Your task to perform on an android device: search for starred emails in the gmail app Image 0: 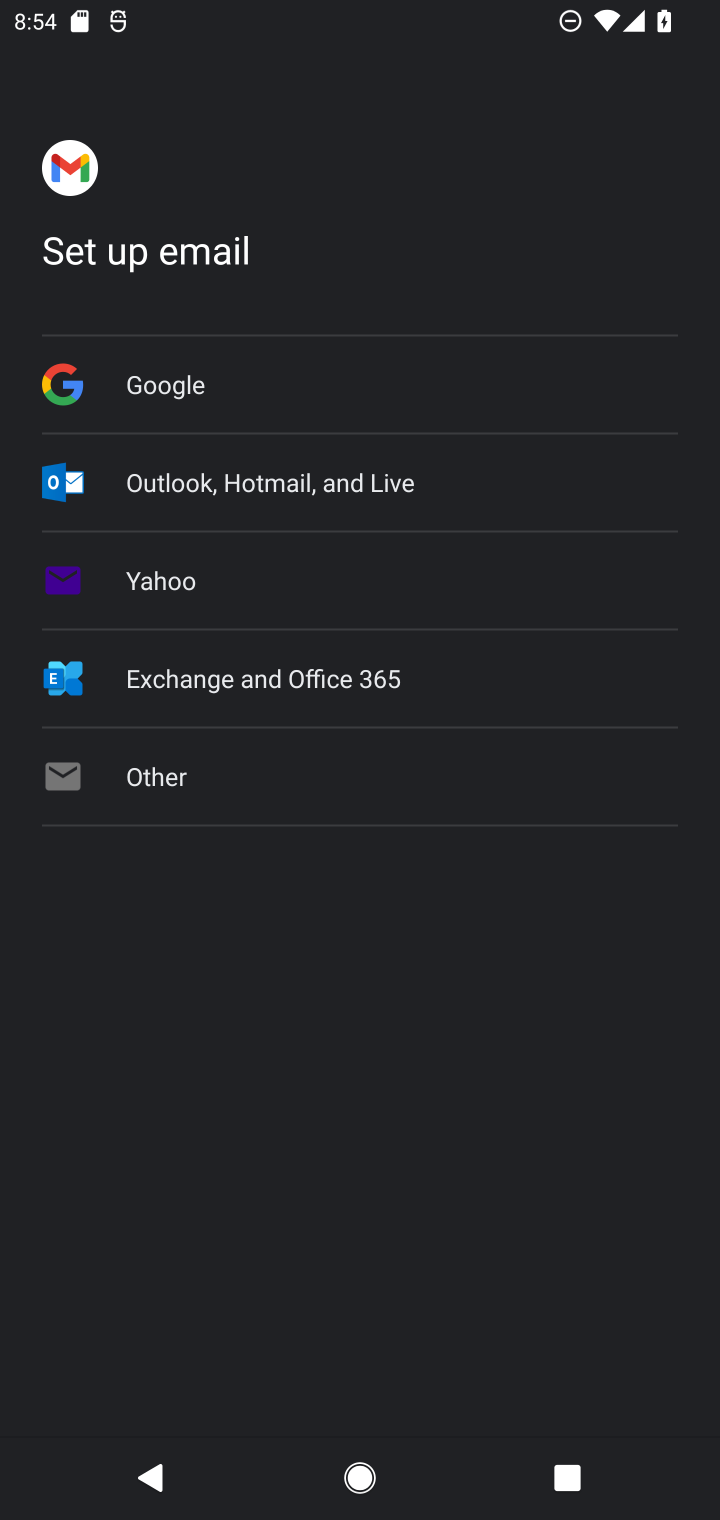
Step 0: press home button
Your task to perform on an android device: search for starred emails in the gmail app Image 1: 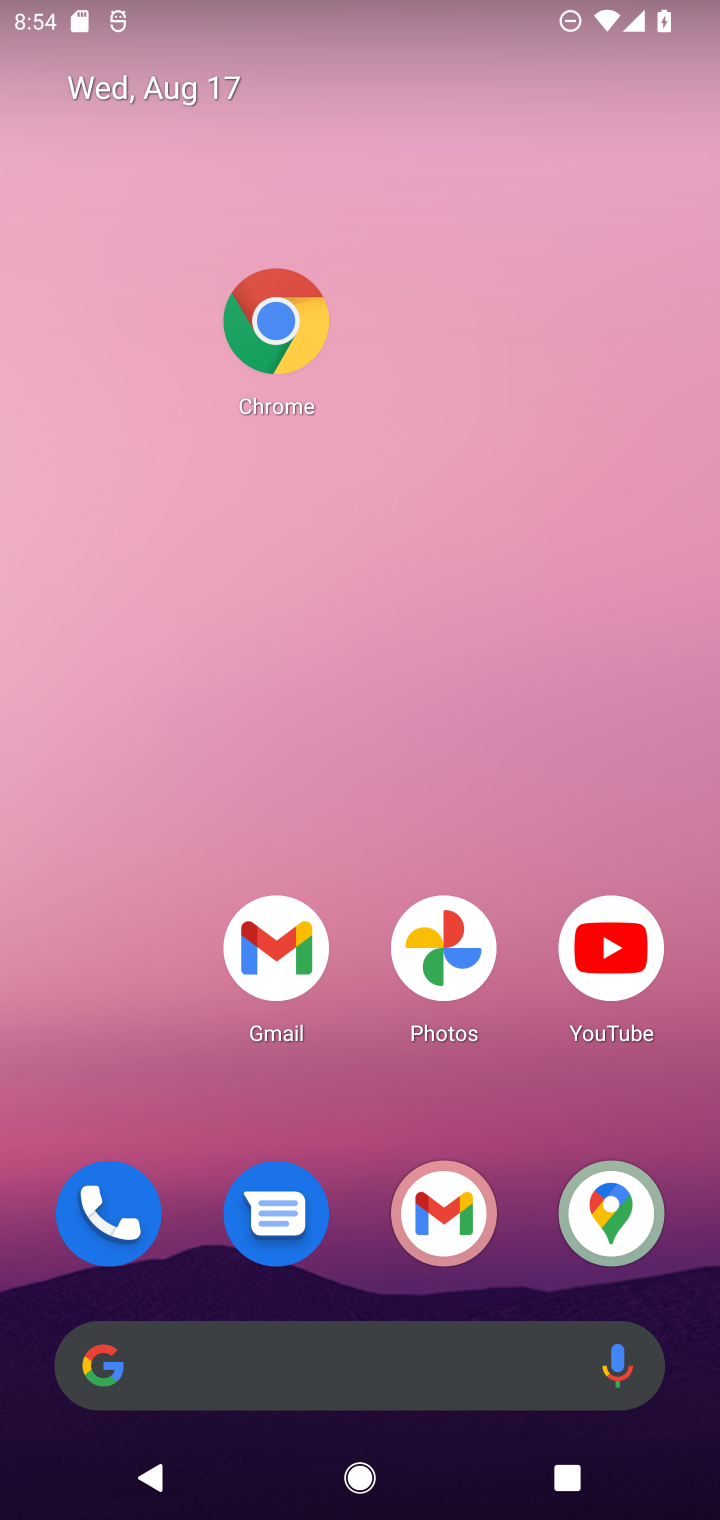
Step 1: click (424, 1224)
Your task to perform on an android device: search for starred emails in the gmail app Image 2: 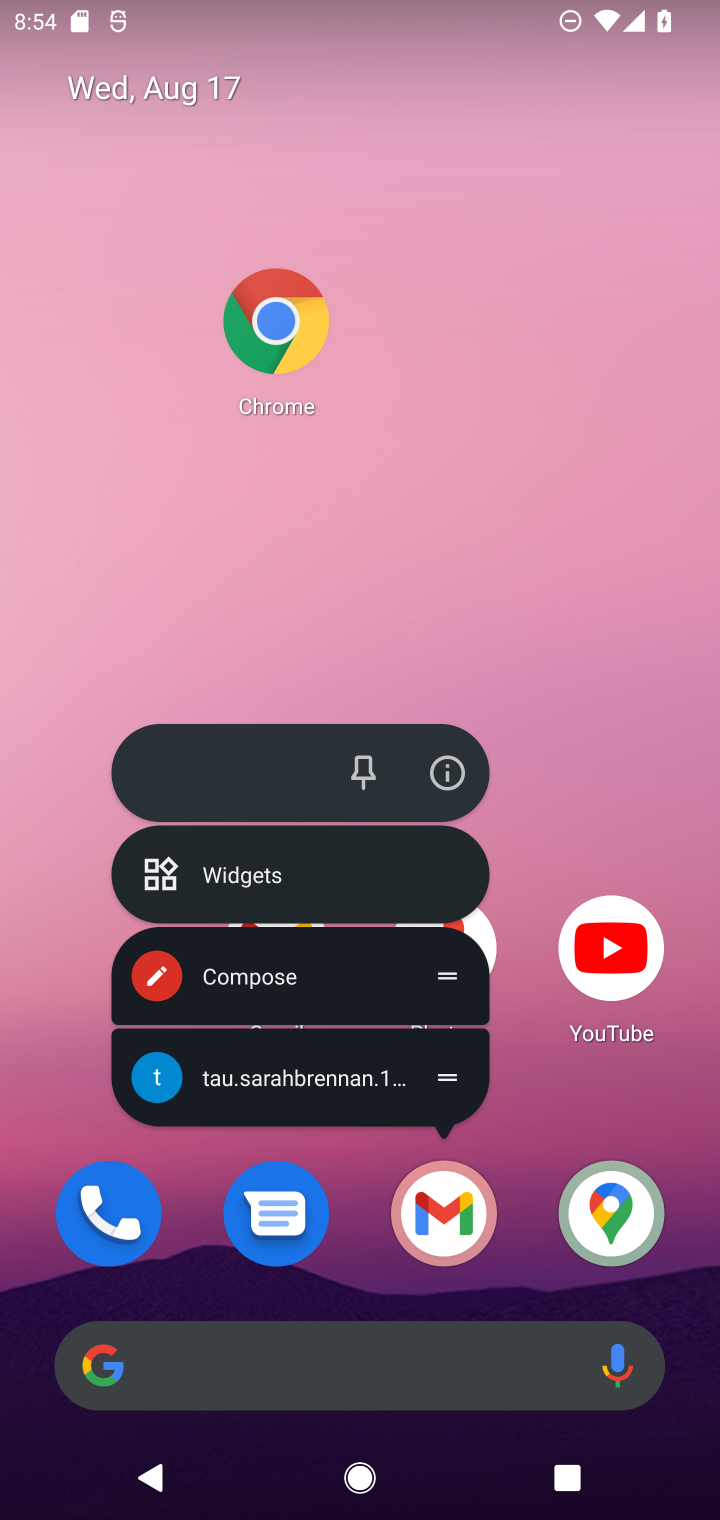
Step 2: click (424, 1224)
Your task to perform on an android device: search for starred emails in the gmail app Image 3: 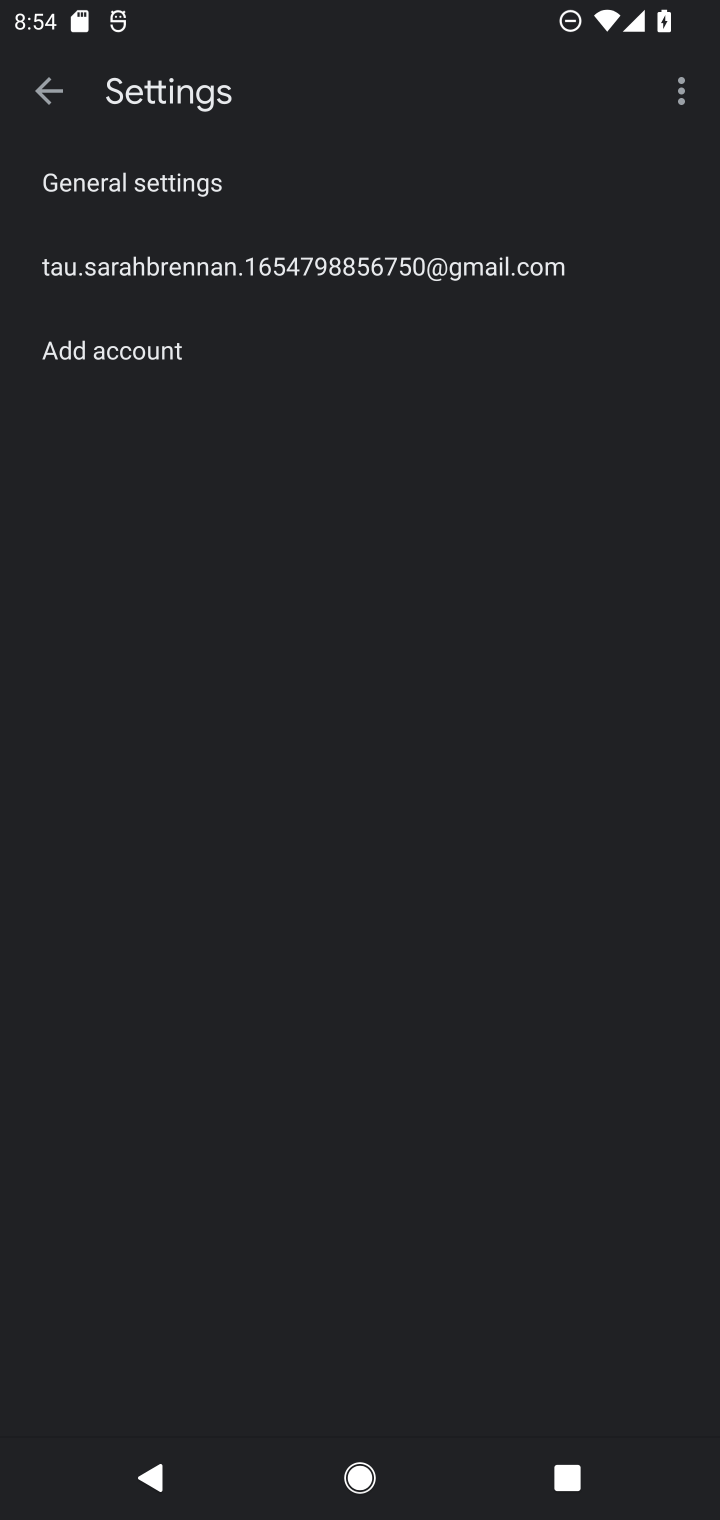
Step 3: click (27, 103)
Your task to perform on an android device: search for starred emails in the gmail app Image 4: 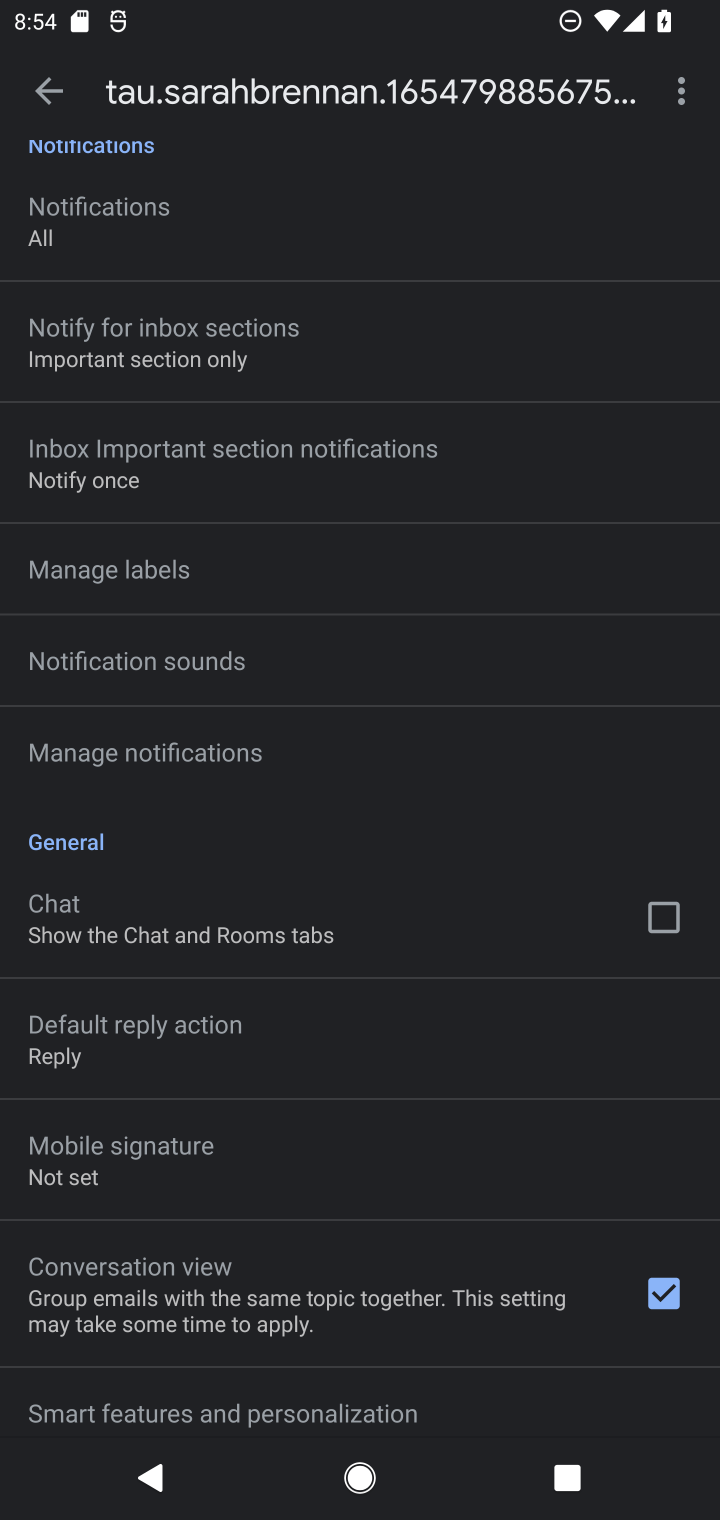
Step 4: click (27, 103)
Your task to perform on an android device: search for starred emails in the gmail app Image 5: 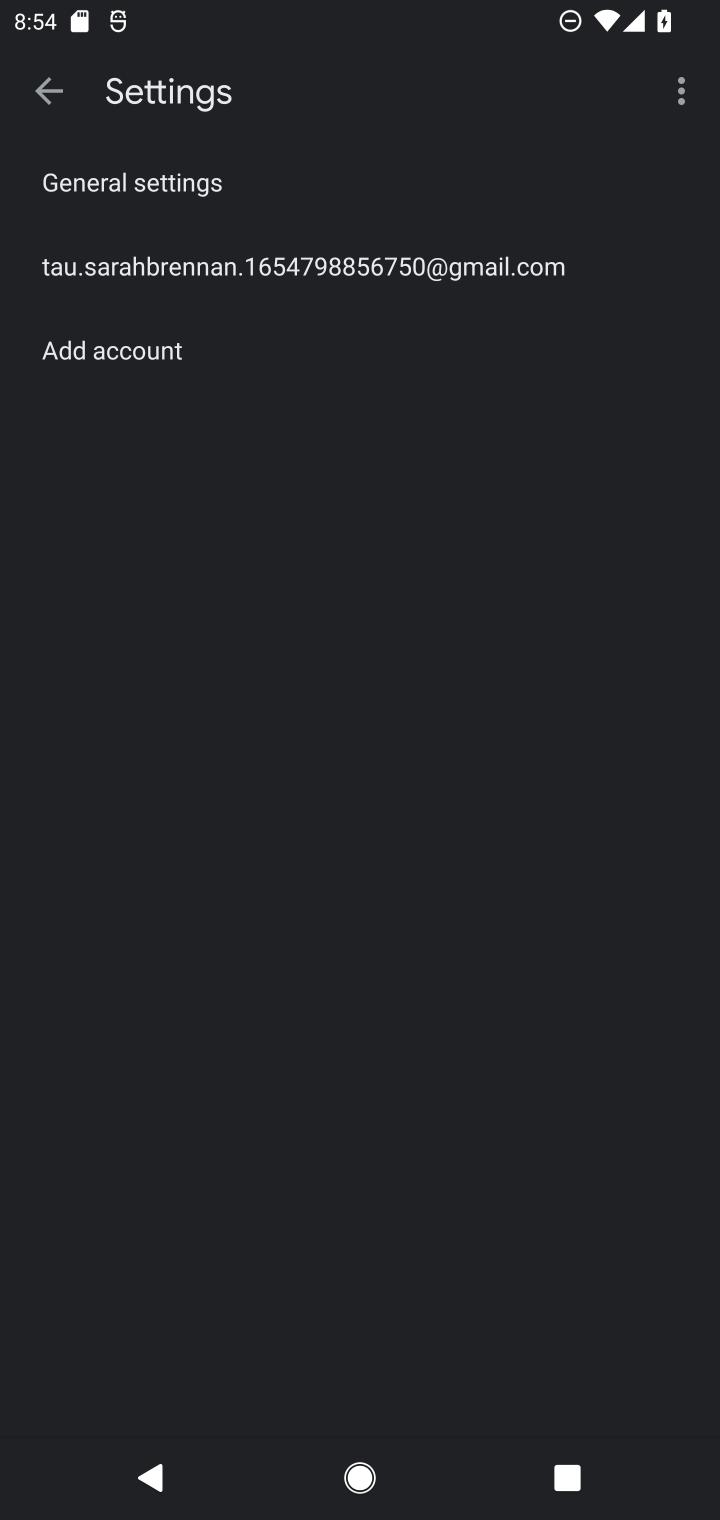
Step 5: click (27, 103)
Your task to perform on an android device: search for starred emails in the gmail app Image 6: 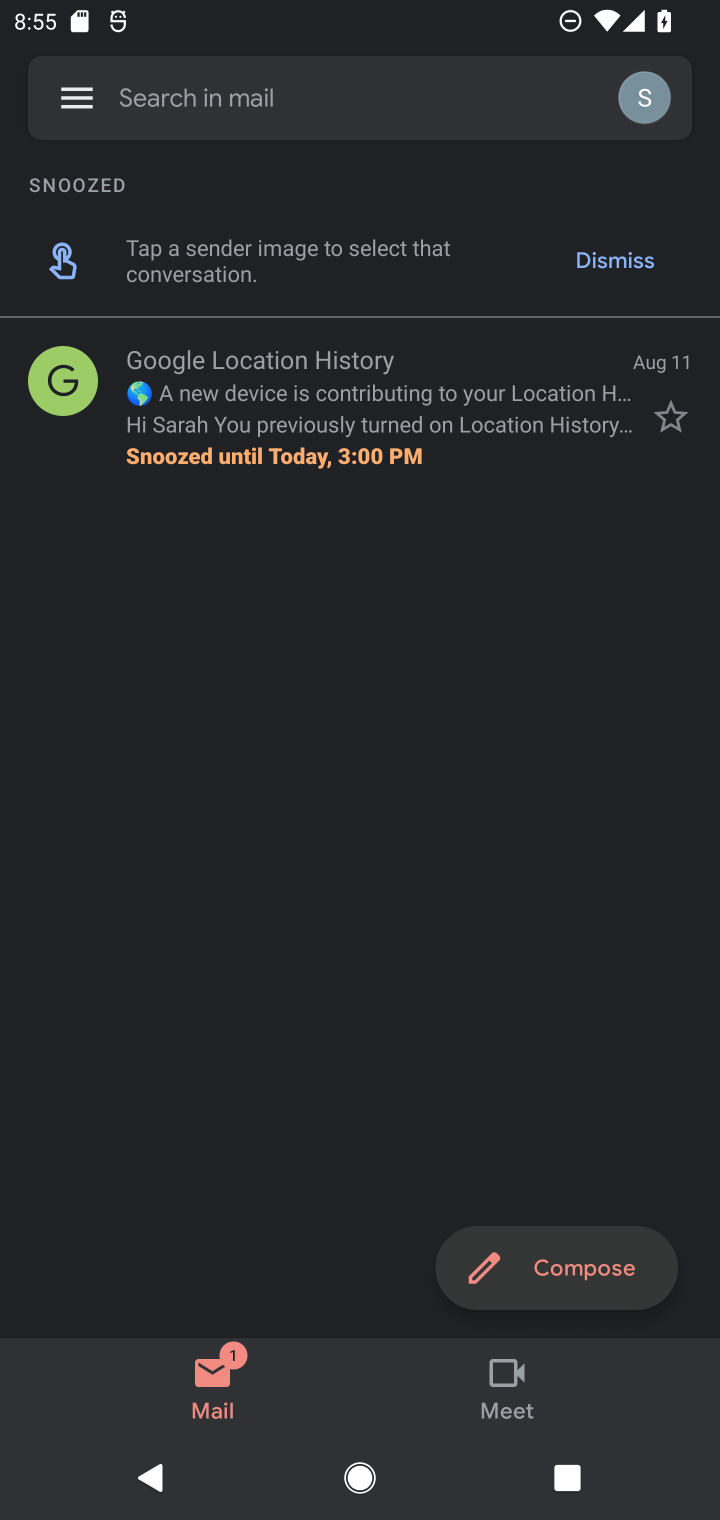
Step 6: click (64, 118)
Your task to perform on an android device: search for starred emails in the gmail app Image 7: 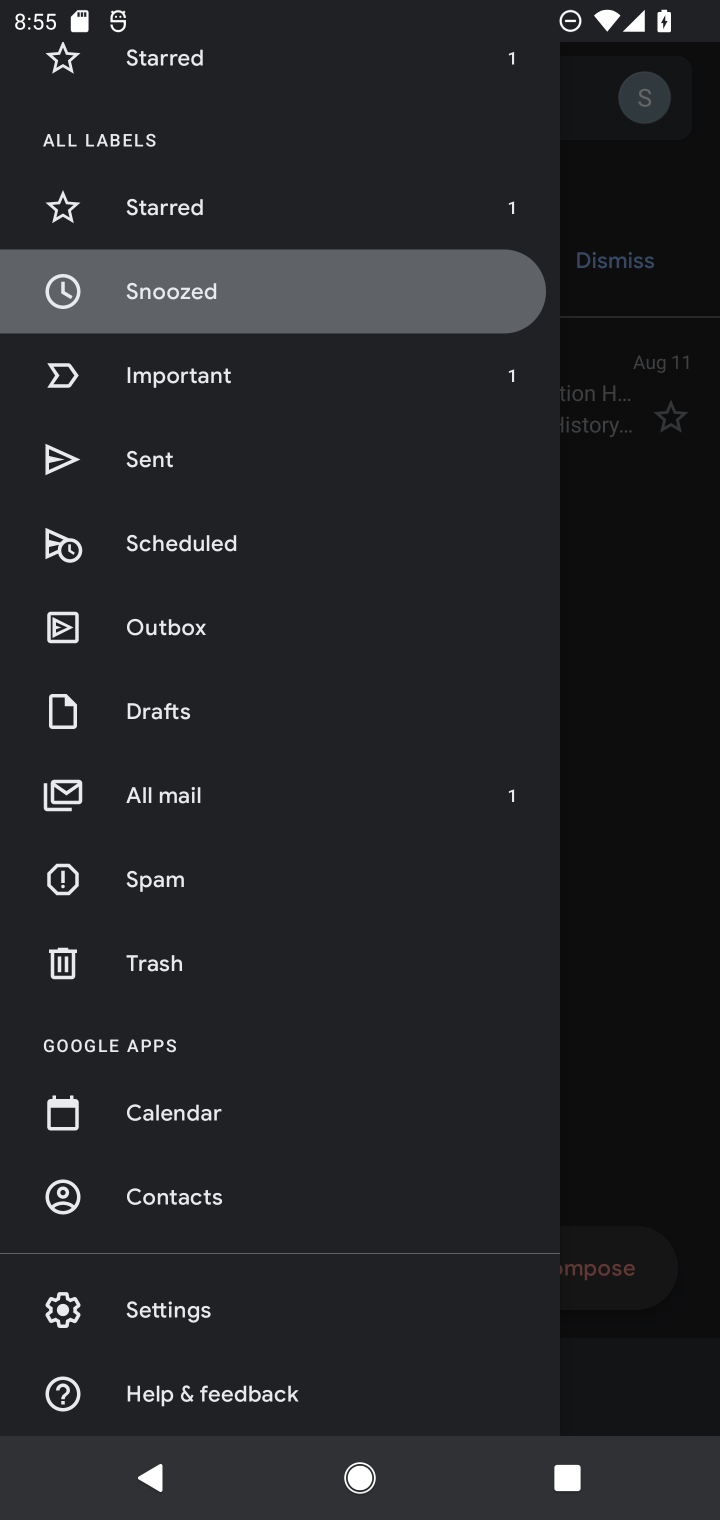
Step 7: click (160, 181)
Your task to perform on an android device: search for starred emails in the gmail app Image 8: 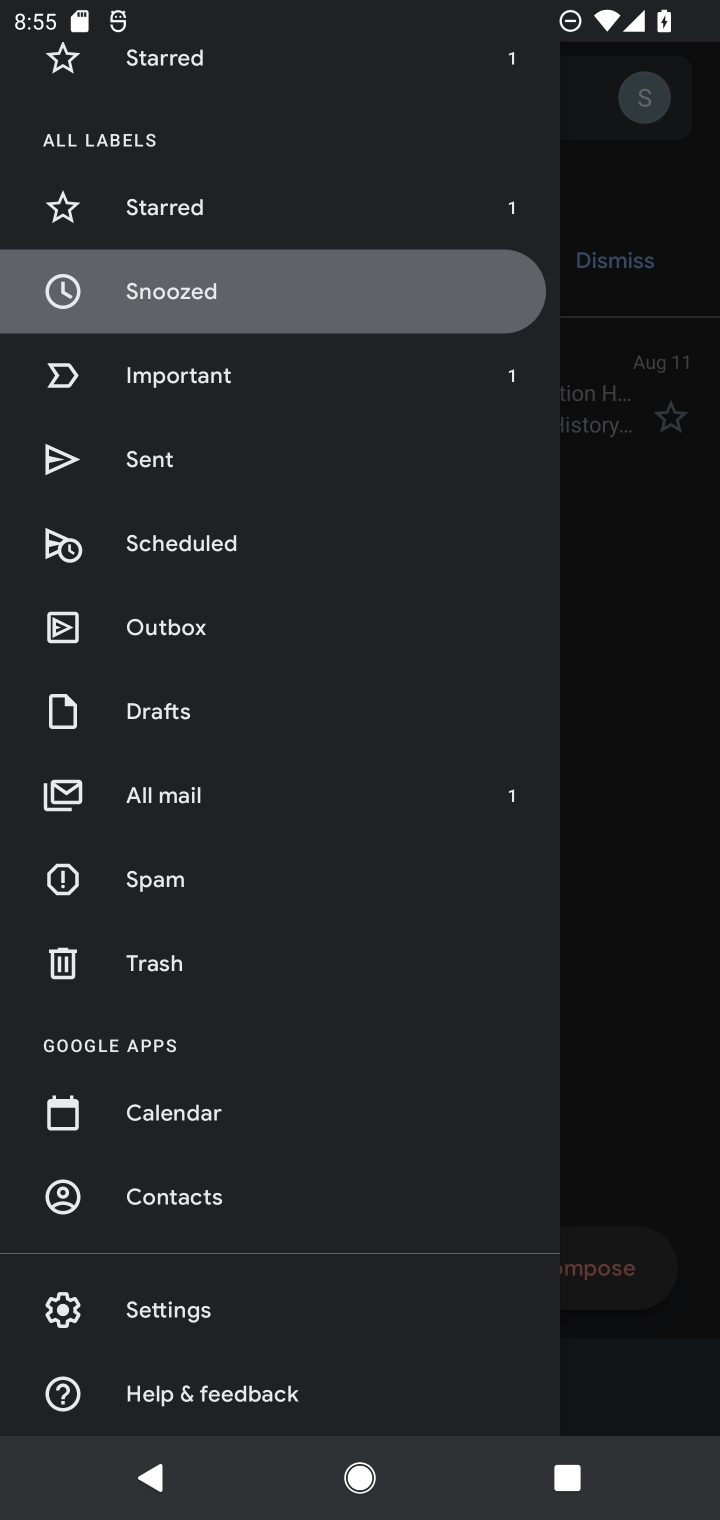
Step 8: click (160, 181)
Your task to perform on an android device: search for starred emails in the gmail app Image 9: 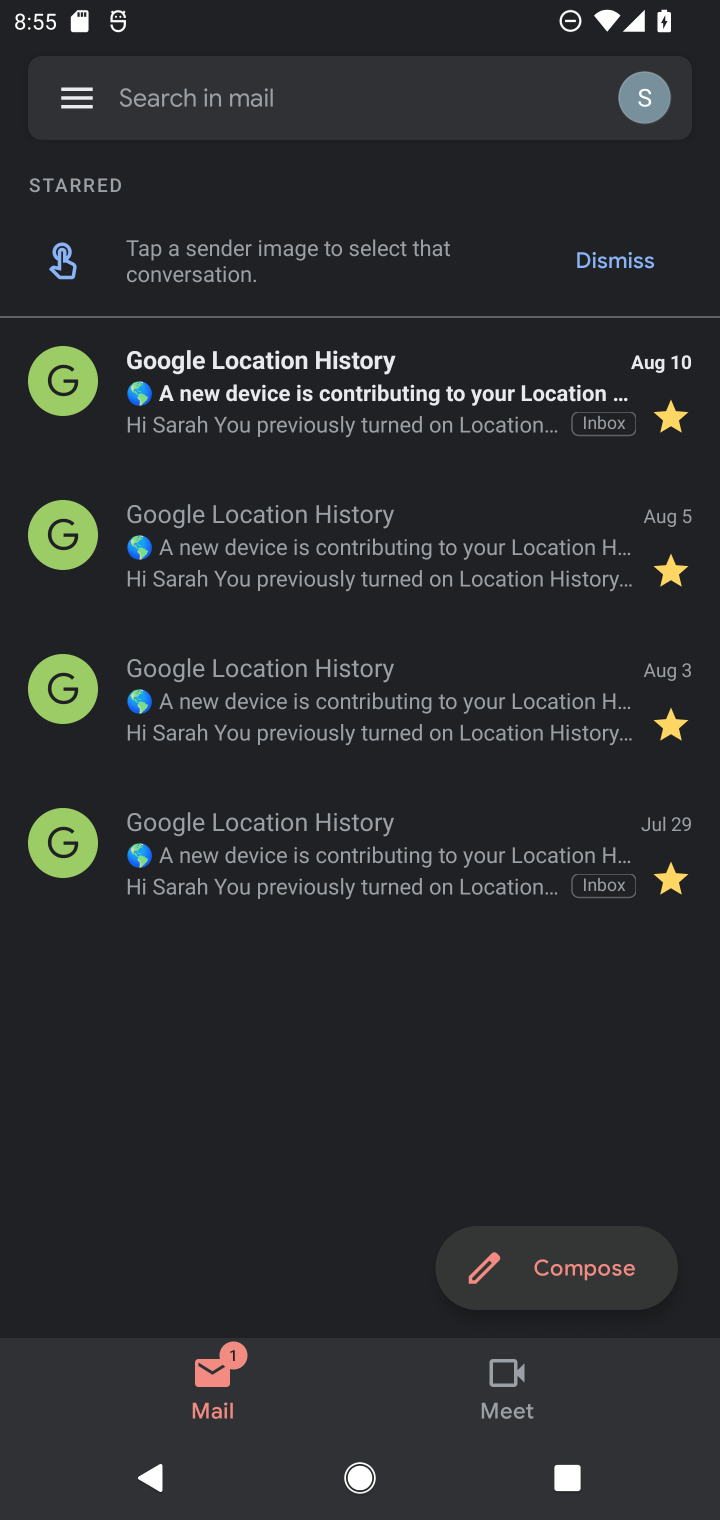
Step 9: task complete